Your task to perform on an android device: Open eBay Image 0: 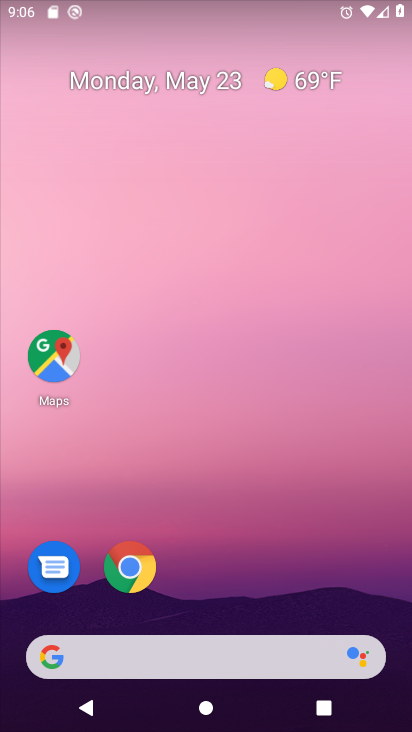
Step 0: click (113, 569)
Your task to perform on an android device: Open eBay Image 1: 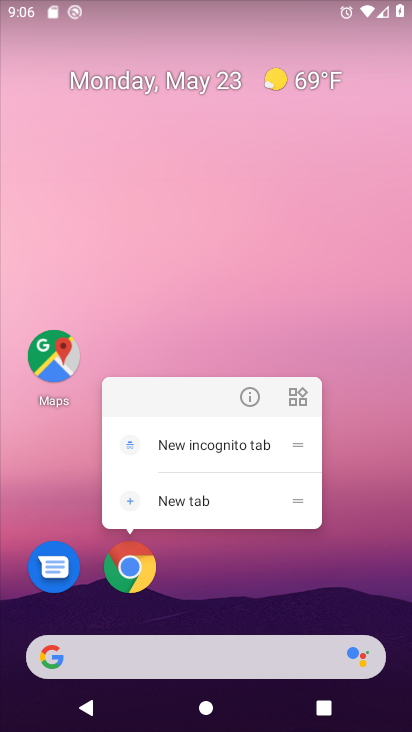
Step 1: click (132, 568)
Your task to perform on an android device: Open eBay Image 2: 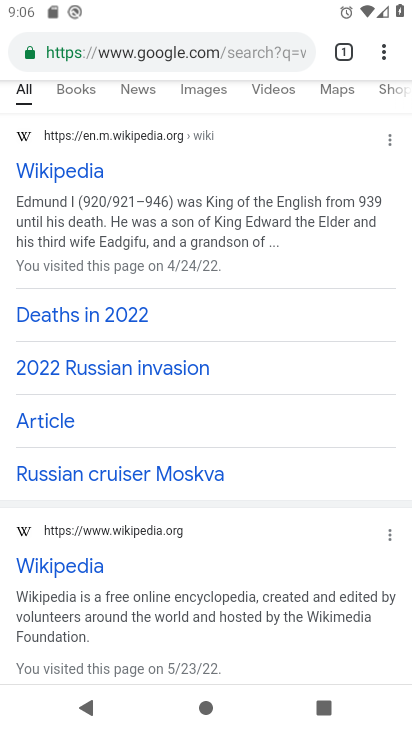
Step 2: click (183, 49)
Your task to perform on an android device: Open eBay Image 3: 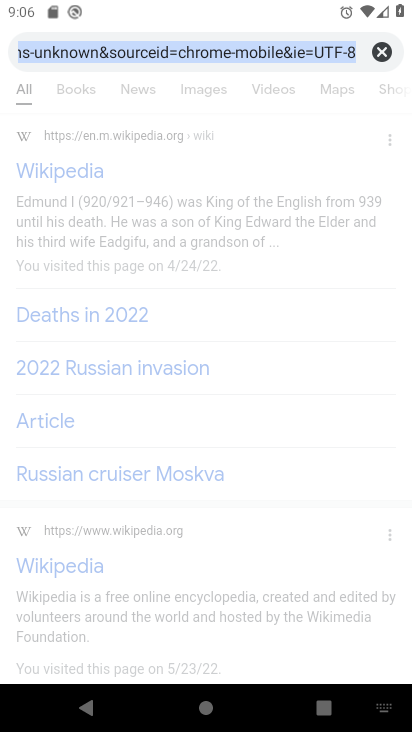
Step 3: type "eBay"
Your task to perform on an android device: Open eBay Image 4: 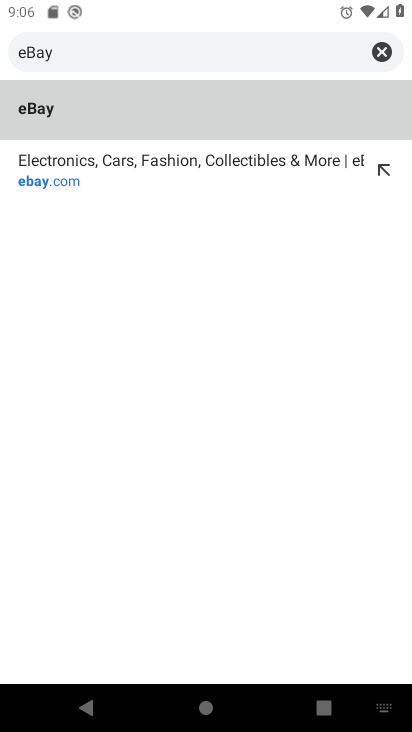
Step 4: click (76, 100)
Your task to perform on an android device: Open eBay Image 5: 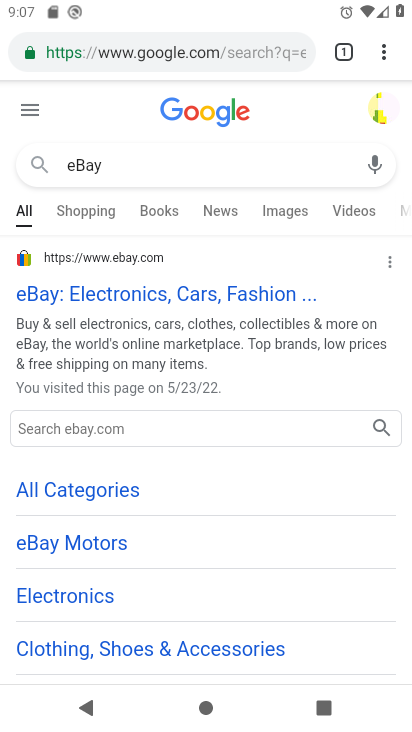
Step 5: task complete